Your task to perform on an android device: Go to ESPN.com Image 0: 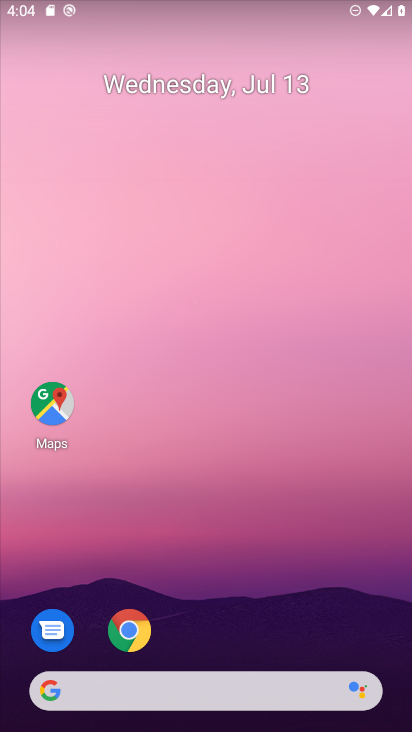
Step 0: click (125, 635)
Your task to perform on an android device: Go to ESPN.com Image 1: 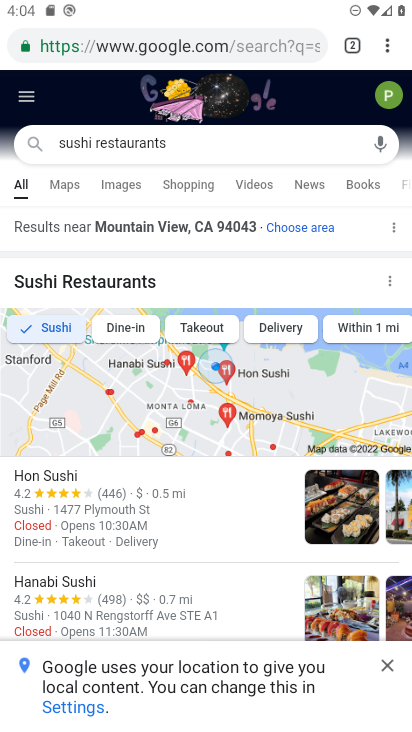
Step 1: click (186, 41)
Your task to perform on an android device: Go to ESPN.com Image 2: 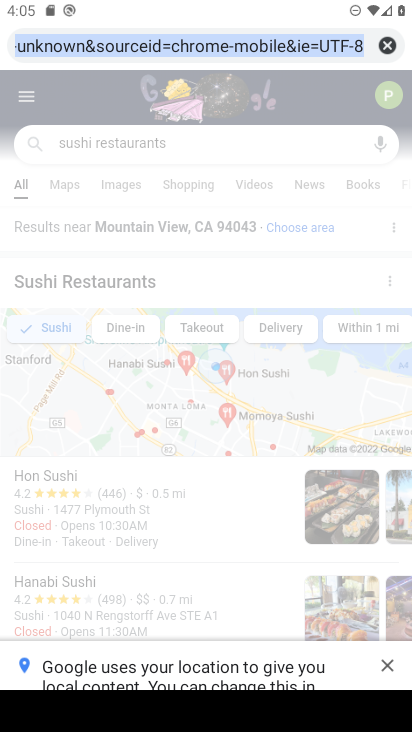
Step 2: type "www.espn.com"
Your task to perform on an android device: Go to ESPN.com Image 3: 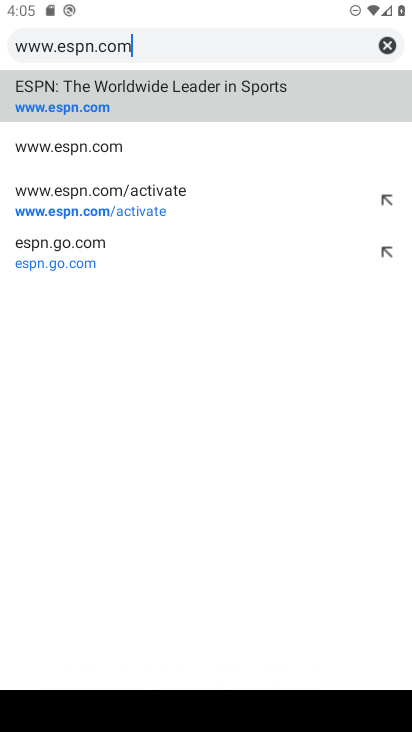
Step 3: click (91, 101)
Your task to perform on an android device: Go to ESPN.com Image 4: 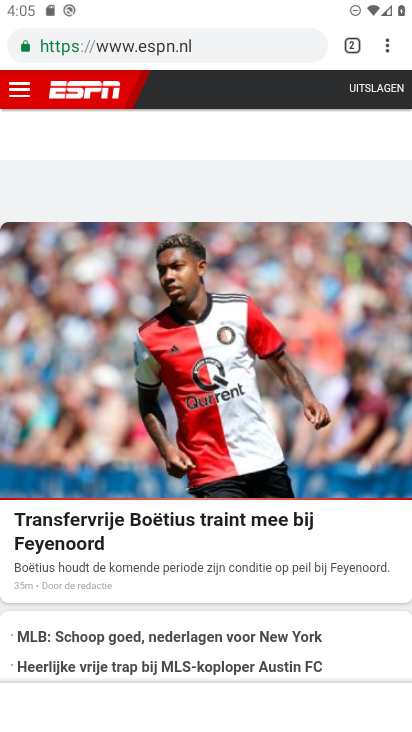
Step 4: task complete